Your task to perform on an android device: Go to accessibility settings Image 0: 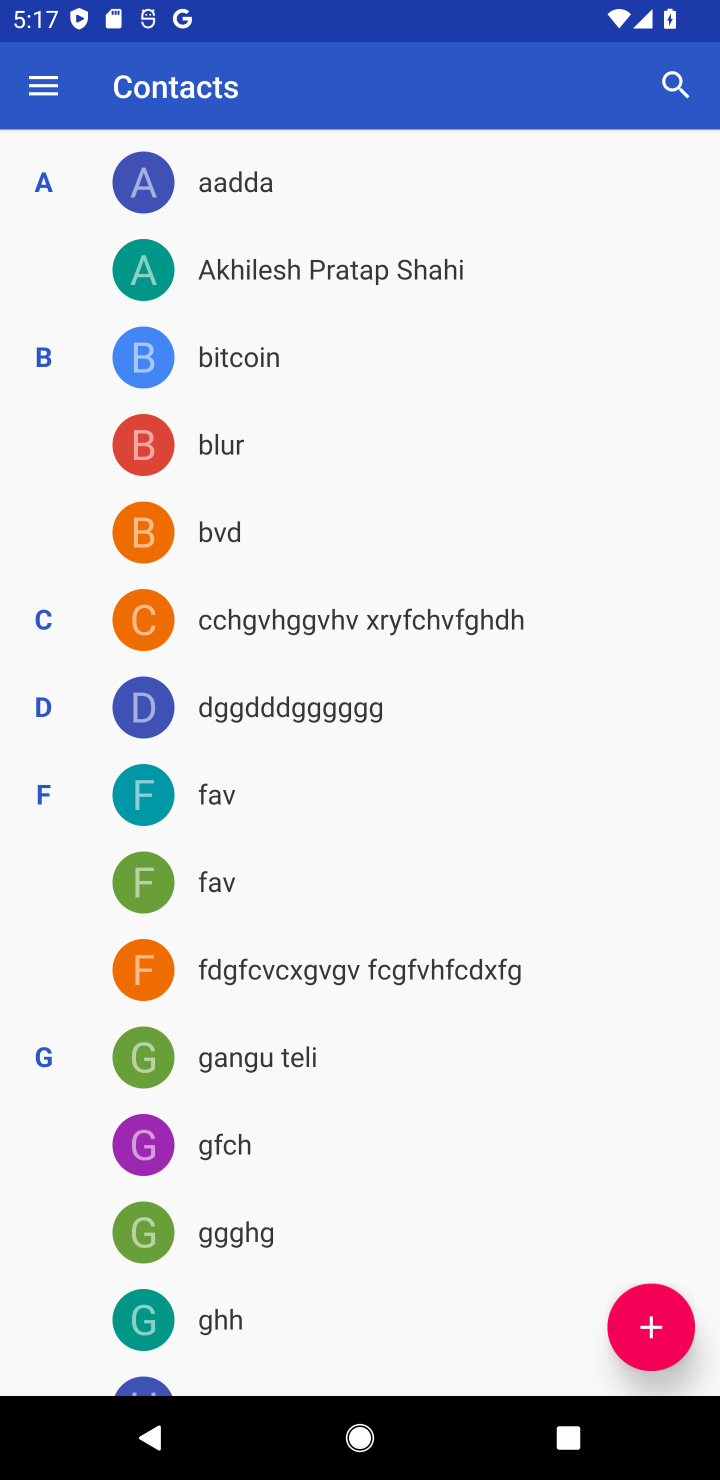
Step 0: press home button
Your task to perform on an android device: Go to accessibility settings Image 1: 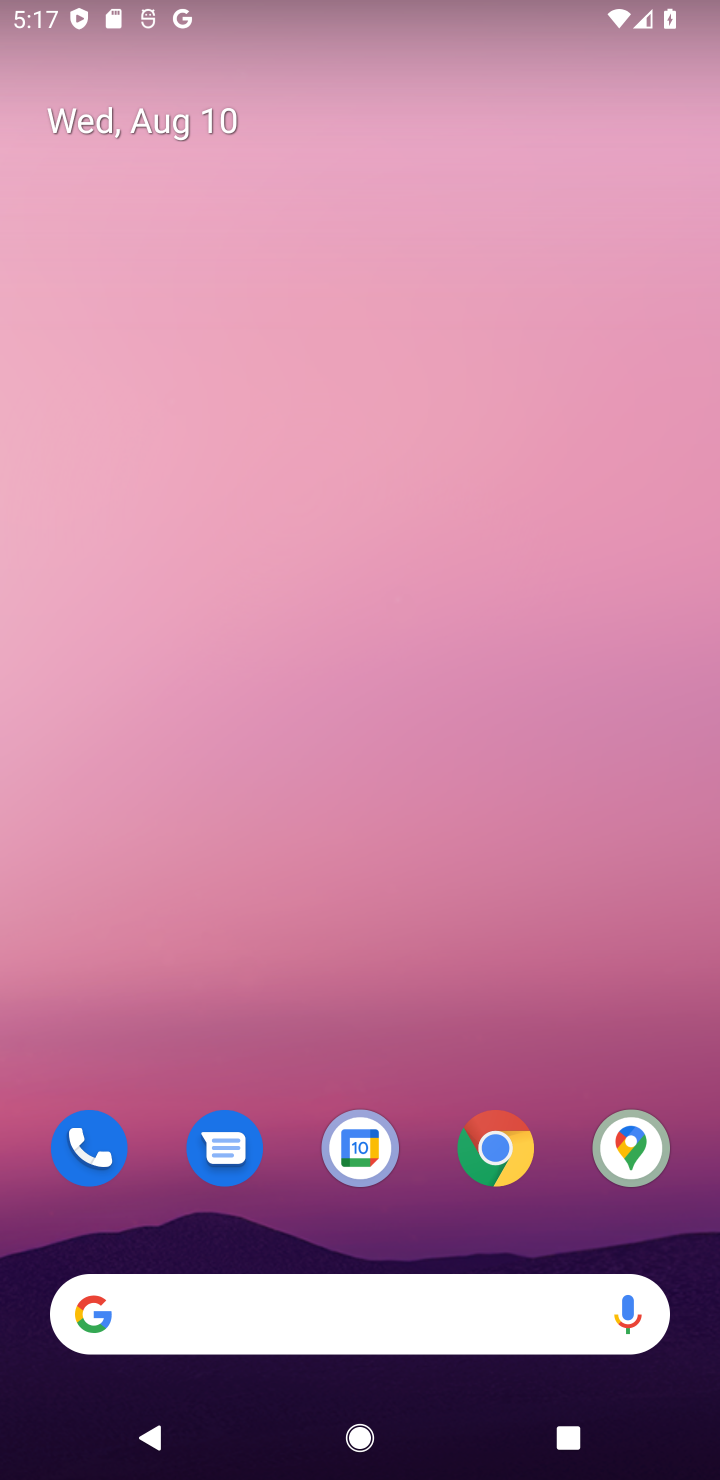
Step 1: drag from (421, 1203) to (380, 269)
Your task to perform on an android device: Go to accessibility settings Image 2: 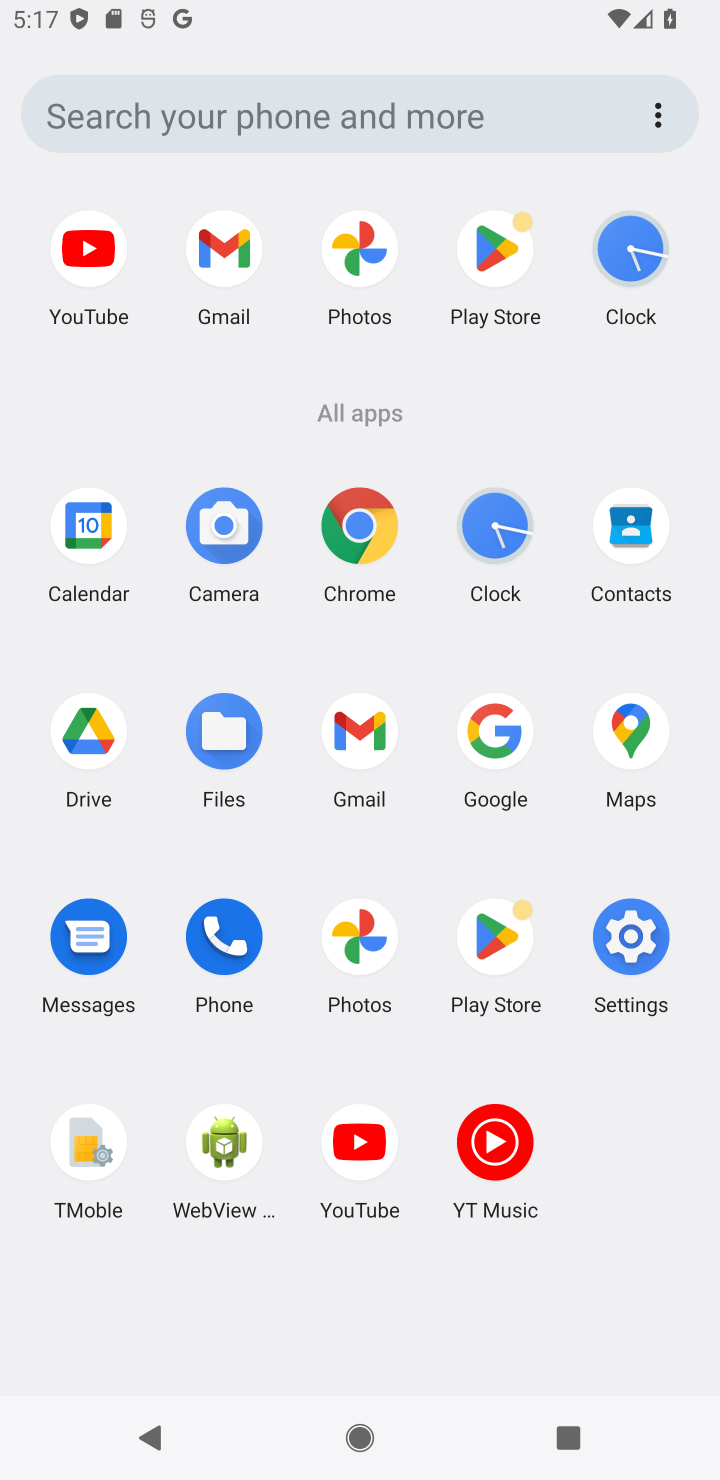
Step 2: click (632, 934)
Your task to perform on an android device: Go to accessibility settings Image 3: 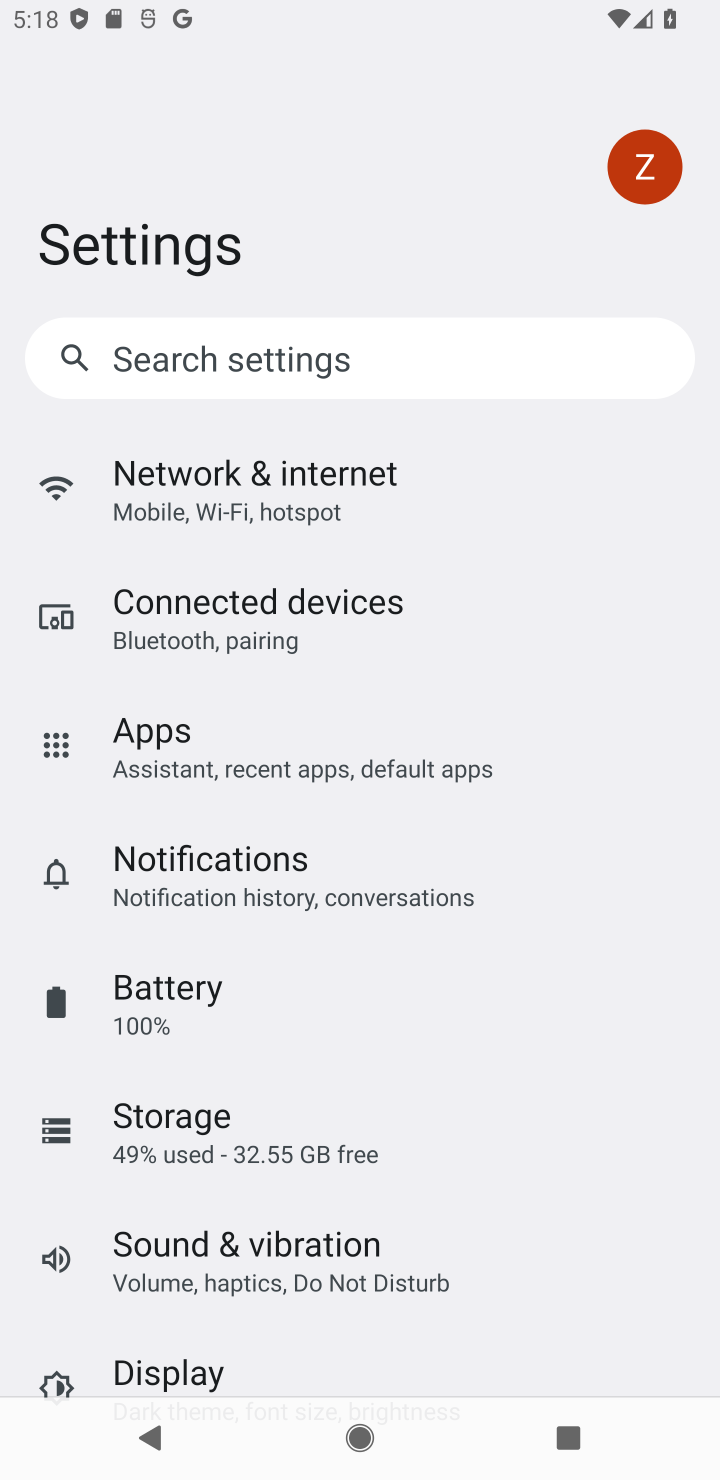
Step 3: drag from (494, 969) to (435, 534)
Your task to perform on an android device: Go to accessibility settings Image 4: 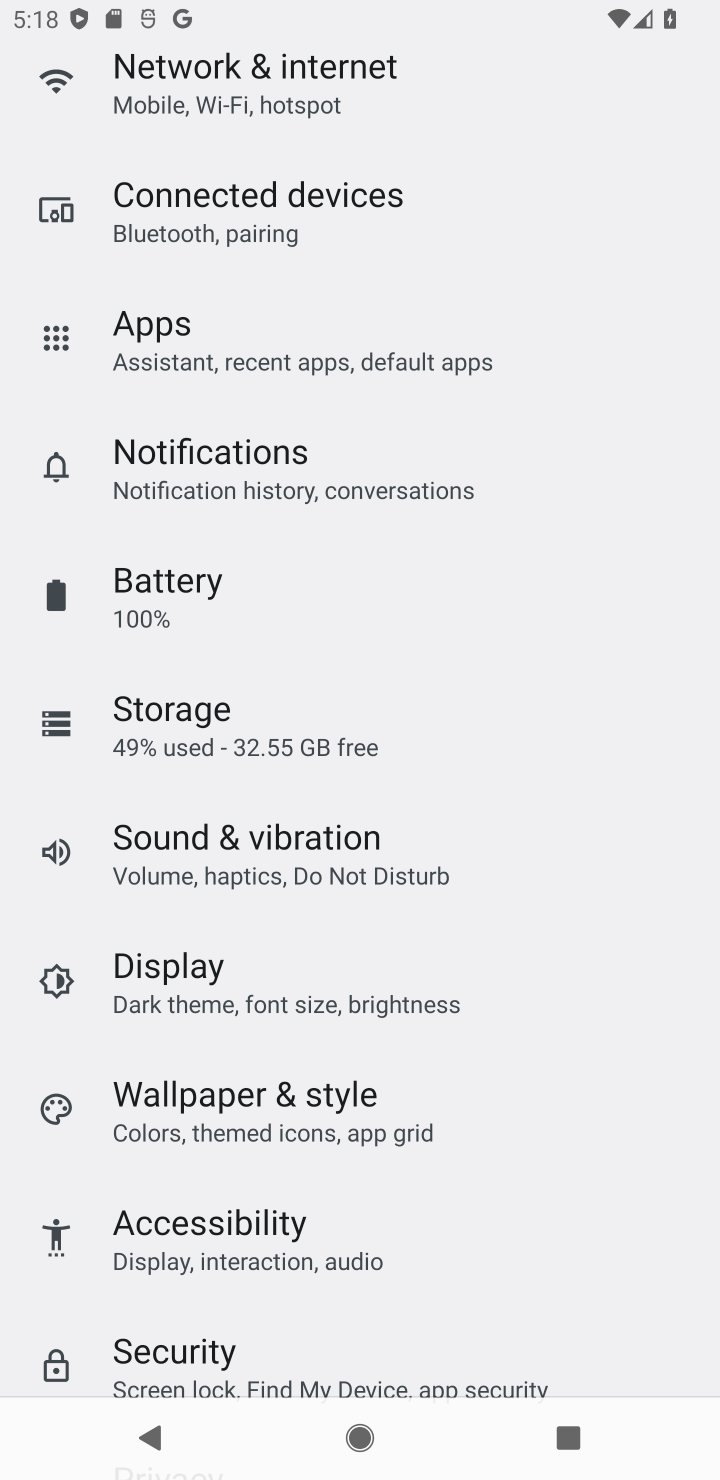
Step 4: click (247, 1228)
Your task to perform on an android device: Go to accessibility settings Image 5: 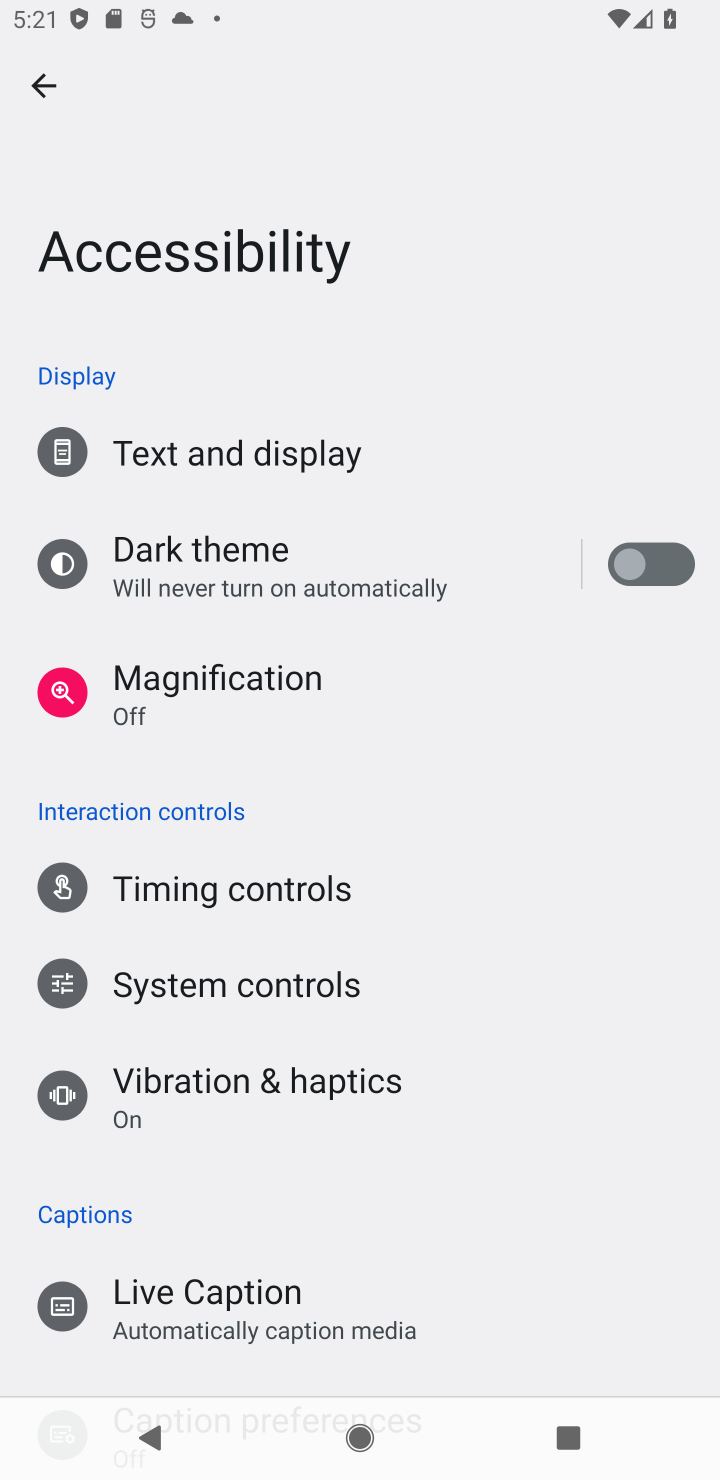
Step 5: task complete